Your task to perform on an android device: Open network settings Image 0: 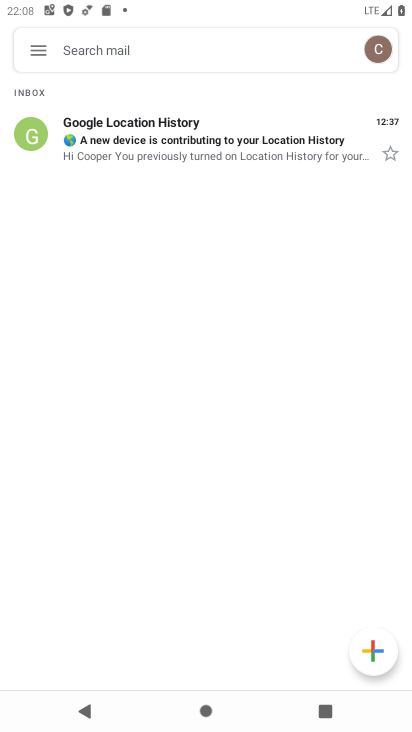
Step 0: press back button
Your task to perform on an android device: Open network settings Image 1: 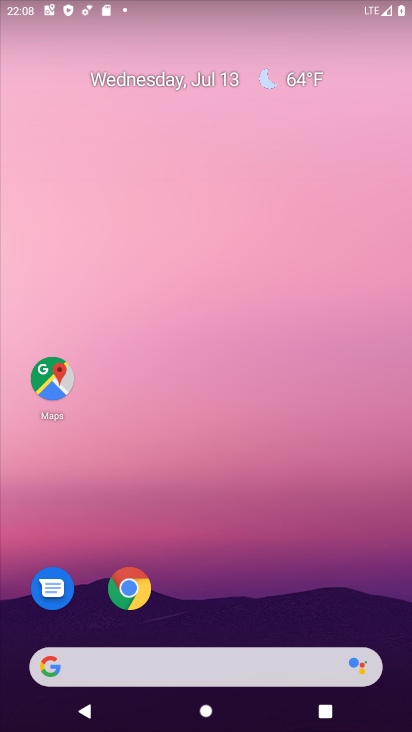
Step 1: drag from (265, 548) to (341, 19)
Your task to perform on an android device: Open network settings Image 2: 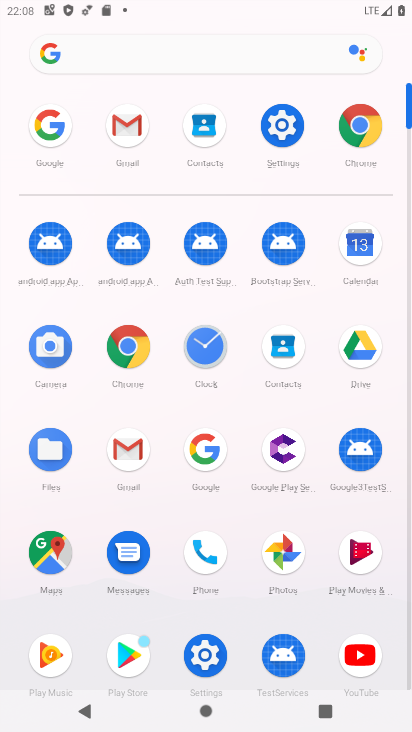
Step 2: click (277, 124)
Your task to perform on an android device: Open network settings Image 3: 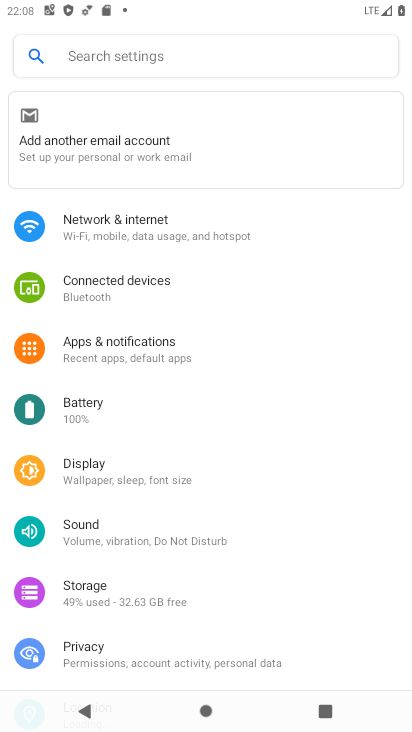
Step 3: click (136, 212)
Your task to perform on an android device: Open network settings Image 4: 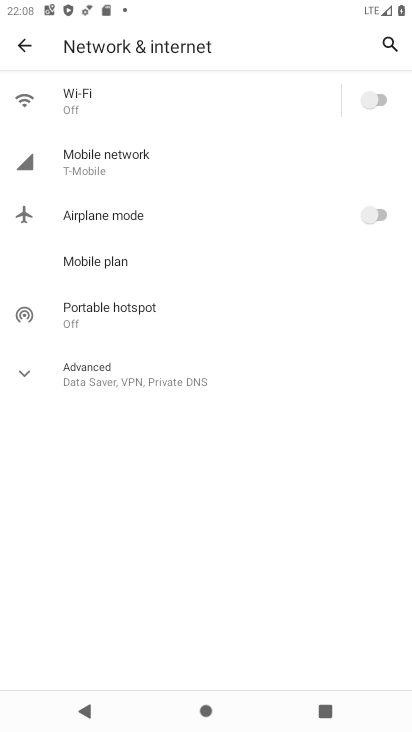
Step 4: task complete